Your task to perform on an android device: turn on translation in the chrome app Image 0: 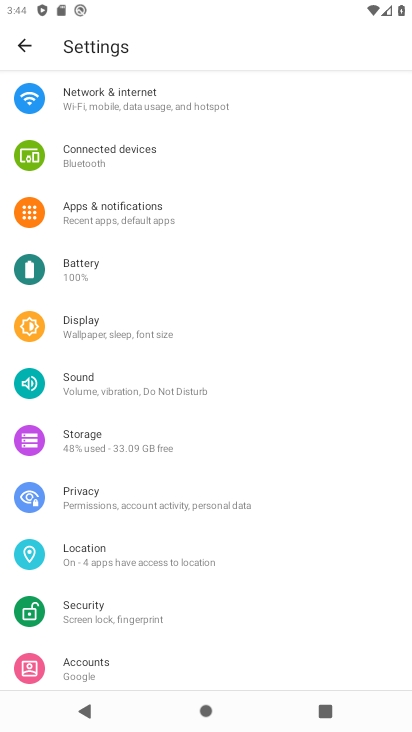
Step 0: drag from (249, 597) to (314, 203)
Your task to perform on an android device: turn on translation in the chrome app Image 1: 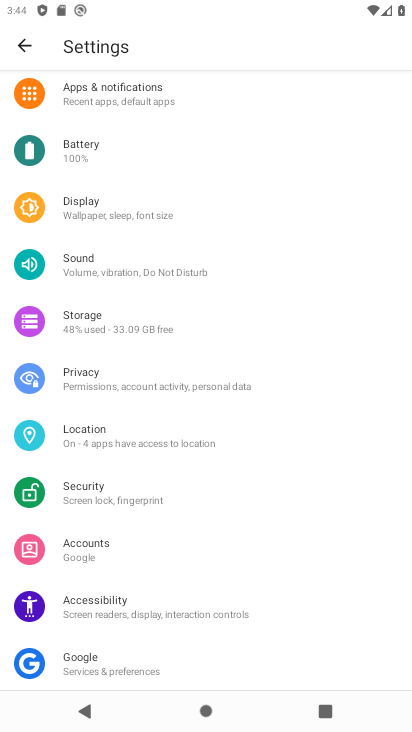
Step 1: press home button
Your task to perform on an android device: turn on translation in the chrome app Image 2: 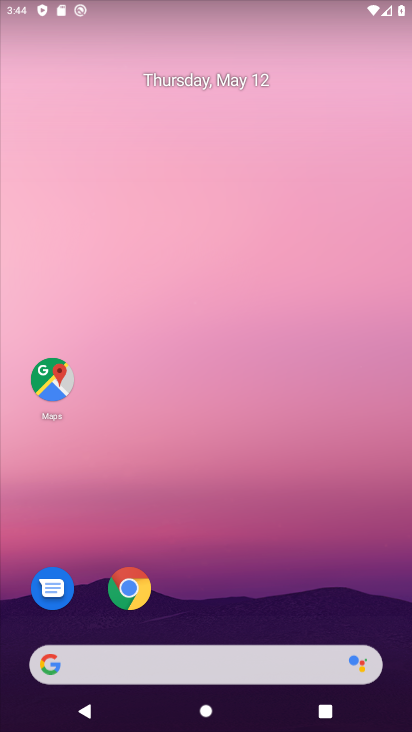
Step 2: drag from (232, 524) to (304, 188)
Your task to perform on an android device: turn on translation in the chrome app Image 3: 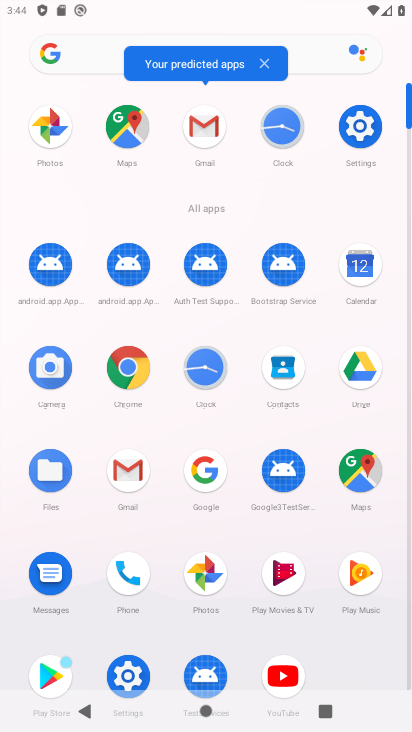
Step 3: click (129, 358)
Your task to perform on an android device: turn on translation in the chrome app Image 4: 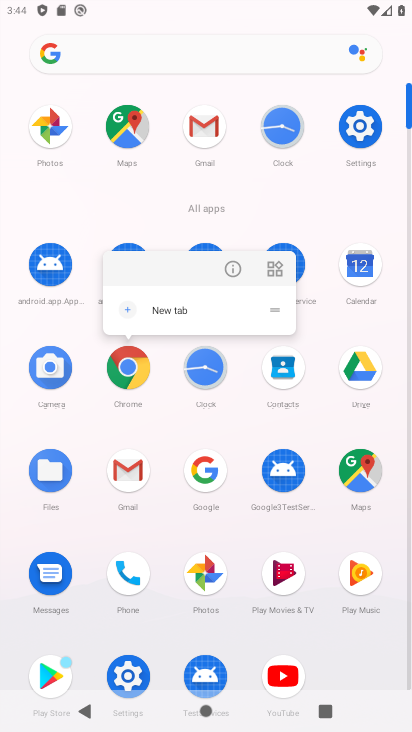
Step 4: click (233, 283)
Your task to perform on an android device: turn on translation in the chrome app Image 5: 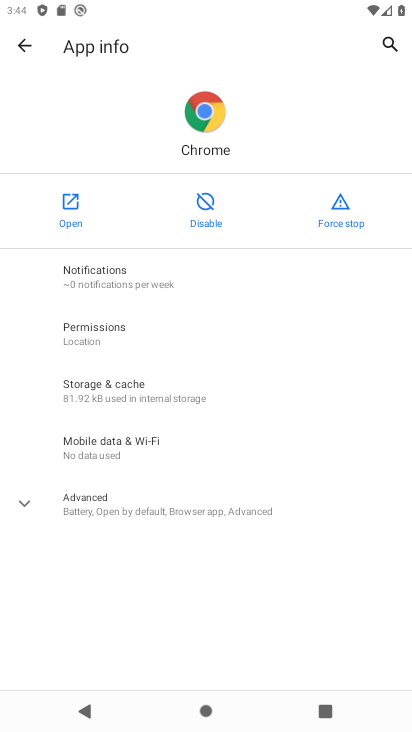
Step 5: click (62, 207)
Your task to perform on an android device: turn on translation in the chrome app Image 6: 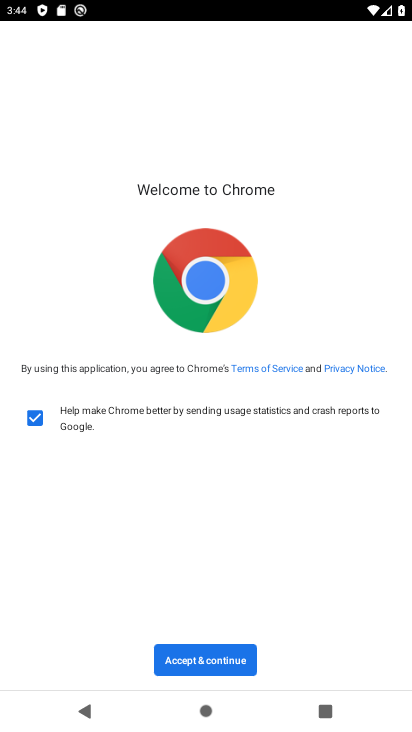
Step 6: click (198, 668)
Your task to perform on an android device: turn on translation in the chrome app Image 7: 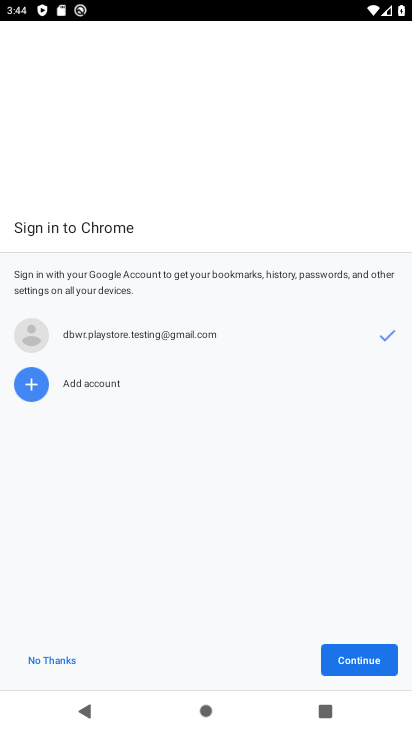
Step 7: click (64, 664)
Your task to perform on an android device: turn on translation in the chrome app Image 8: 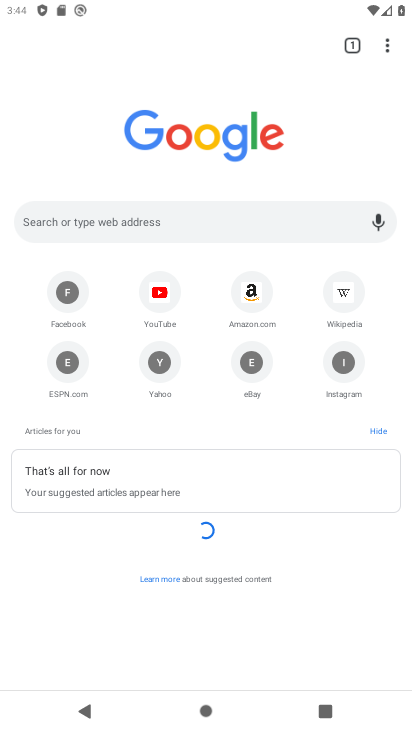
Step 8: drag from (378, 41) to (266, 383)
Your task to perform on an android device: turn on translation in the chrome app Image 9: 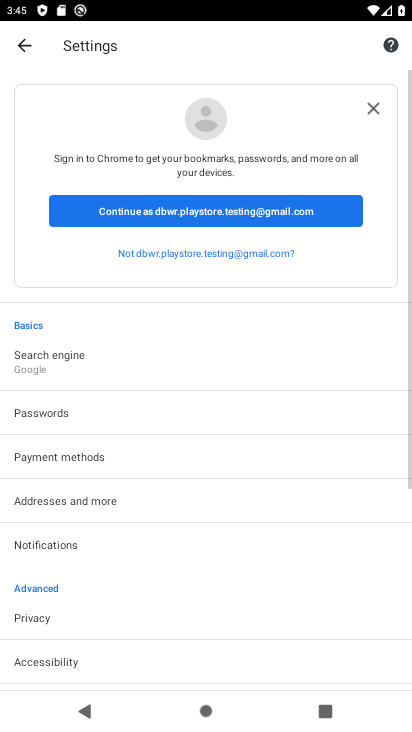
Step 9: drag from (169, 614) to (265, 217)
Your task to perform on an android device: turn on translation in the chrome app Image 10: 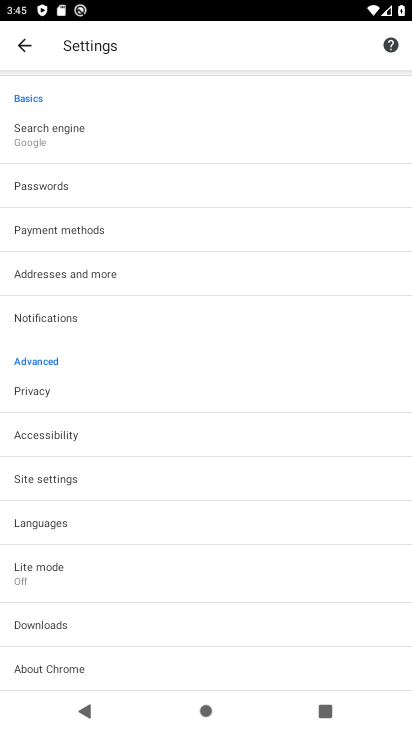
Step 10: click (67, 530)
Your task to perform on an android device: turn on translation in the chrome app Image 11: 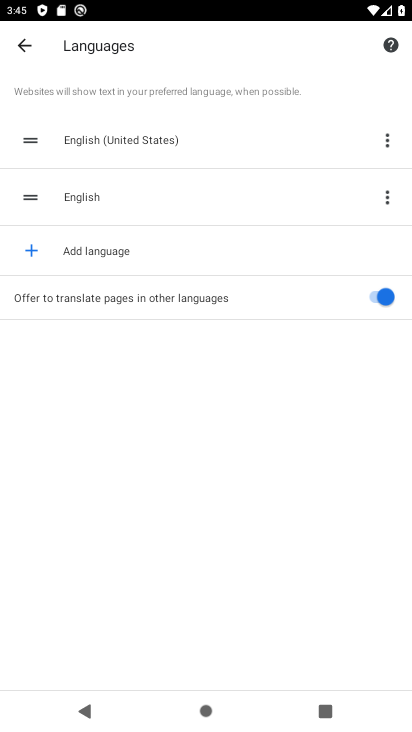
Step 11: task complete